Your task to perform on an android device: remove spam from my inbox in the gmail app Image 0: 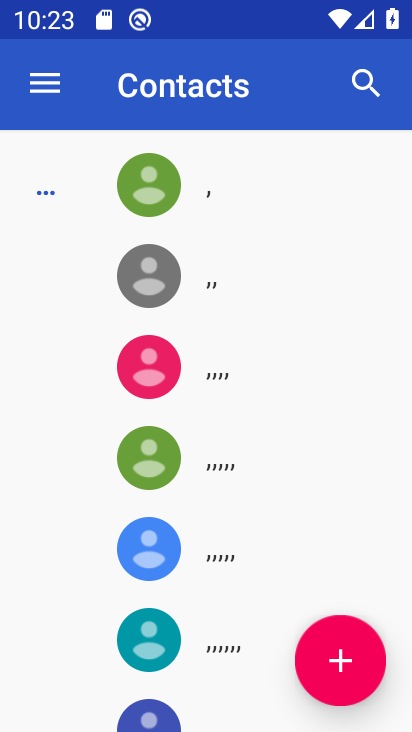
Step 0: press home button
Your task to perform on an android device: remove spam from my inbox in the gmail app Image 1: 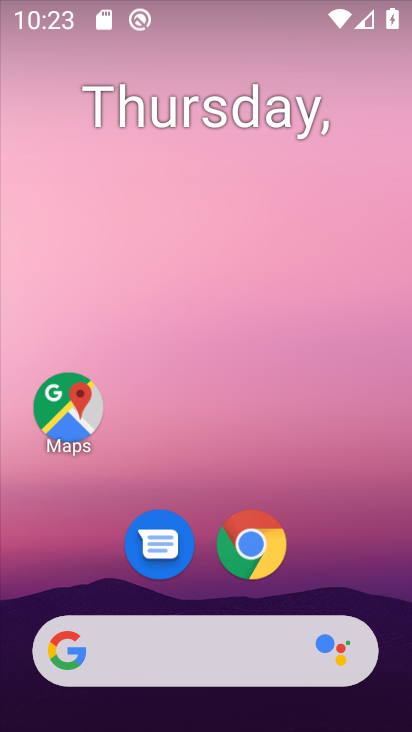
Step 1: drag from (203, 590) to (196, 3)
Your task to perform on an android device: remove spam from my inbox in the gmail app Image 2: 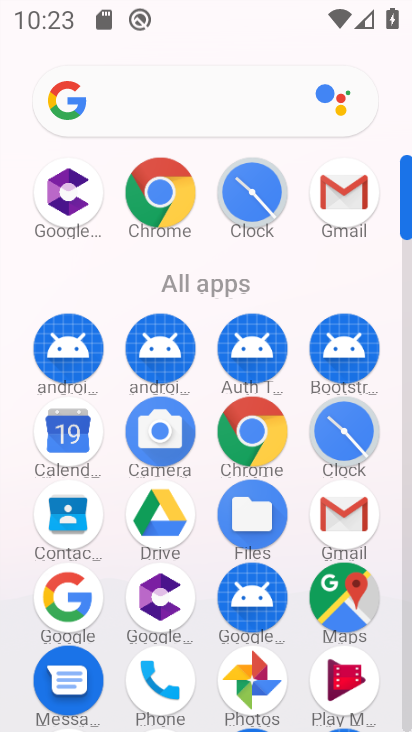
Step 2: click (337, 508)
Your task to perform on an android device: remove spam from my inbox in the gmail app Image 3: 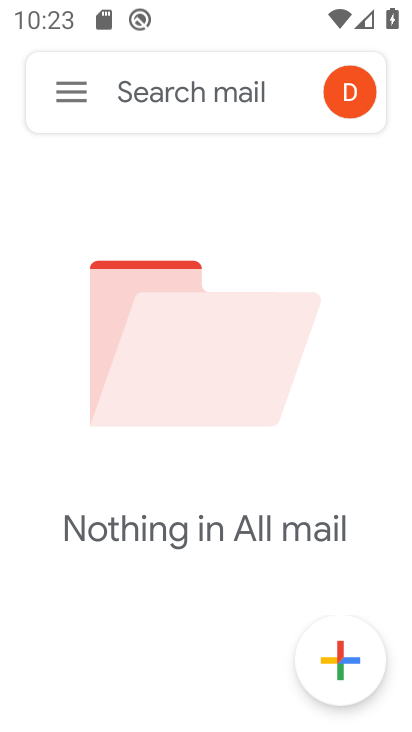
Step 3: click (71, 108)
Your task to perform on an android device: remove spam from my inbox in the gmail app Image 4: 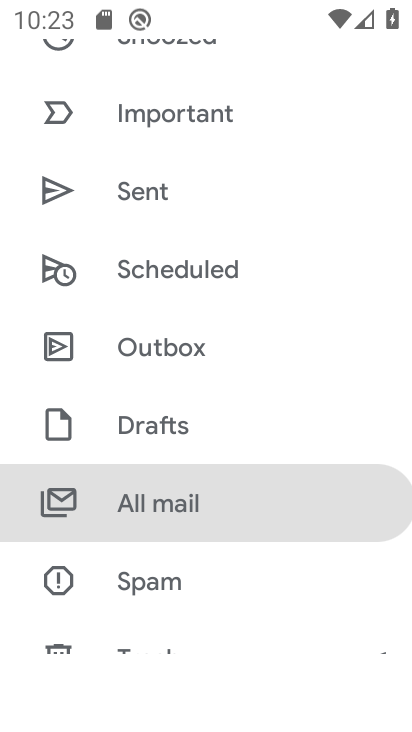
Step 4: click (152, 576)
Your task to perform on an android device: remove spam from my inbox in the gmail app Image 5: 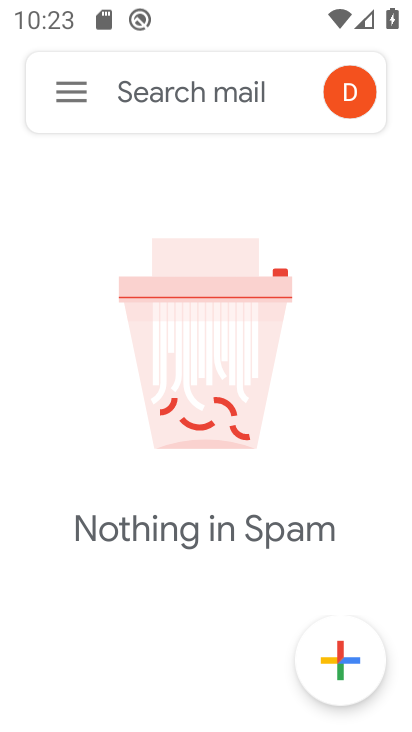
Step 5: task complete